Your task to perform on an android device: turn off notifications in google photos Image 0: 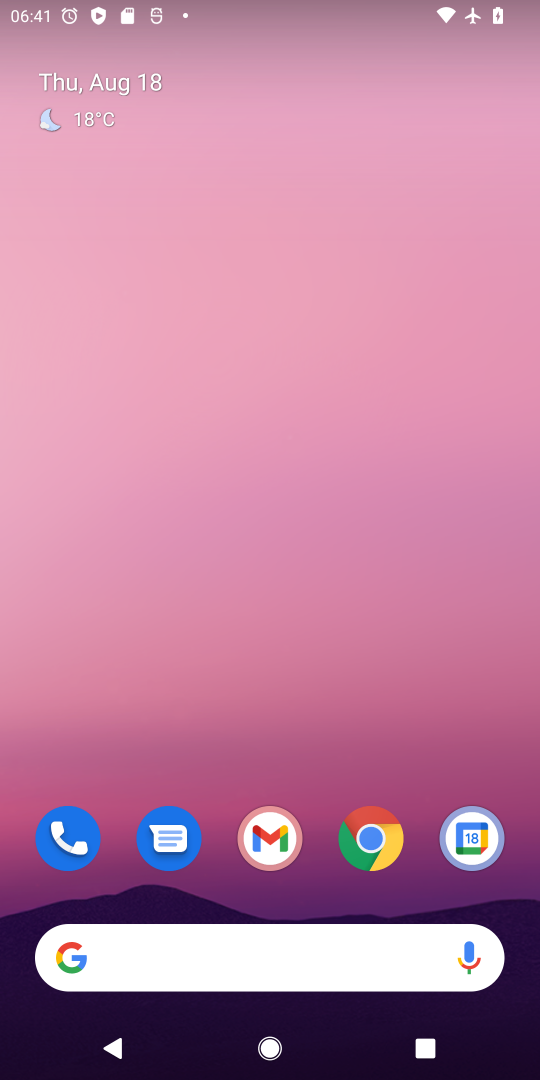
Step 0: press home button
Your task to perform on an android device: turn off notifications in google photos Image 1: 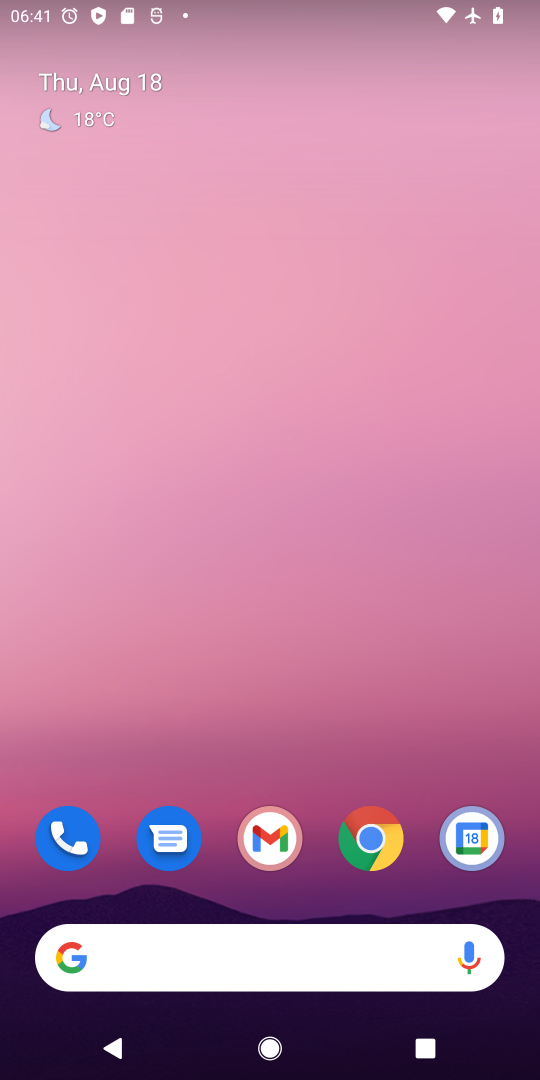
Step 1: drag from (325, 886) to (351, 5)
Your task to perform on an android device: turn off notifications in google photos Image 2: 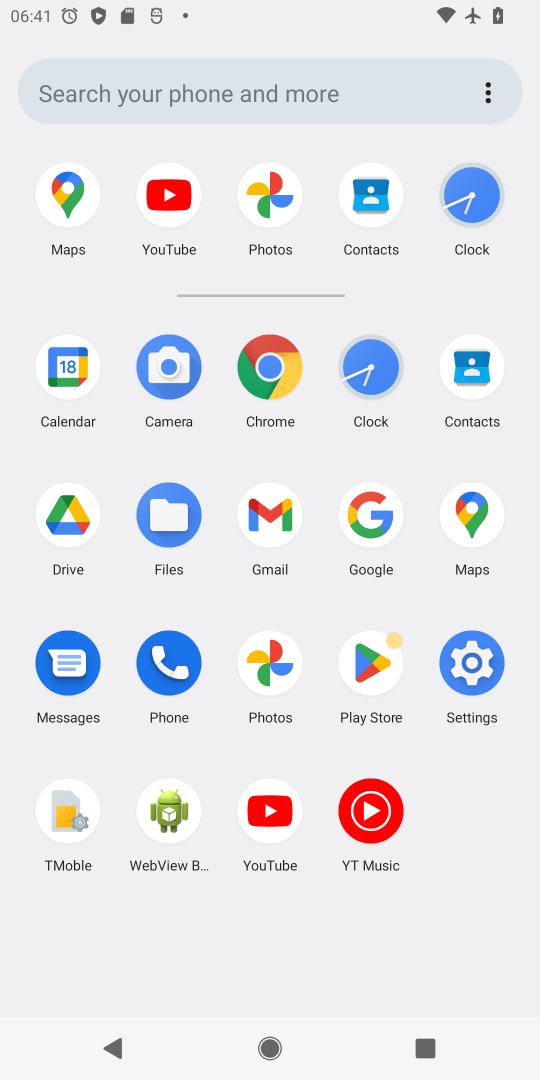
Step 2: click (274, 190)
Your task to perform on an android device: turn off notifications in google photos Image 3: 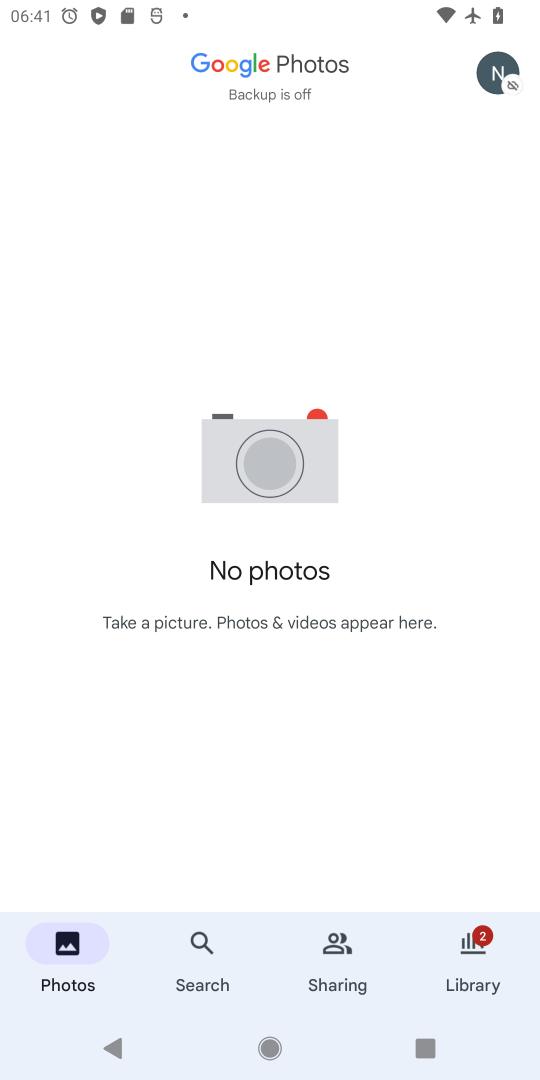
Step 3: click (504, 75)
Your task to perform on an android device: turn off notifications in google photos Image 4: 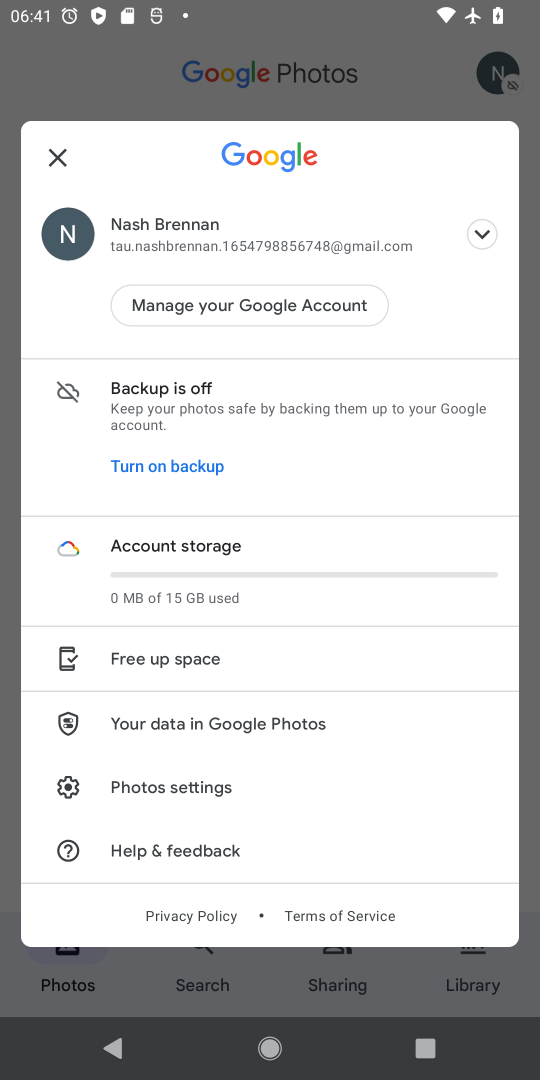
Step 4: click (176, 790)
Your task to perform on an android device: turn off notifications in google photos Image 5: 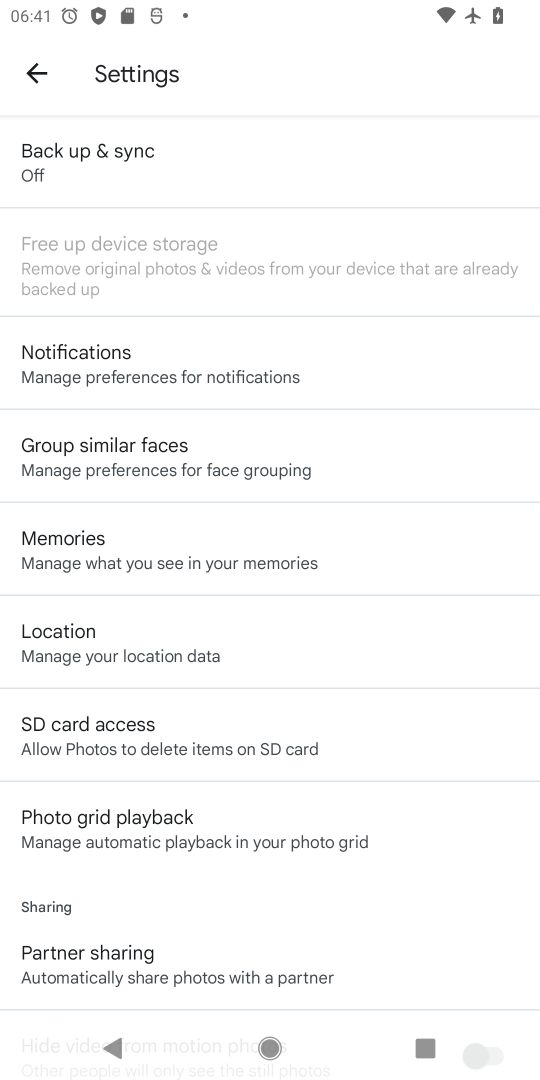
Step 5: click (58, 383)
Your task to perform on an android device: turn off notifications in google photos Image 6: 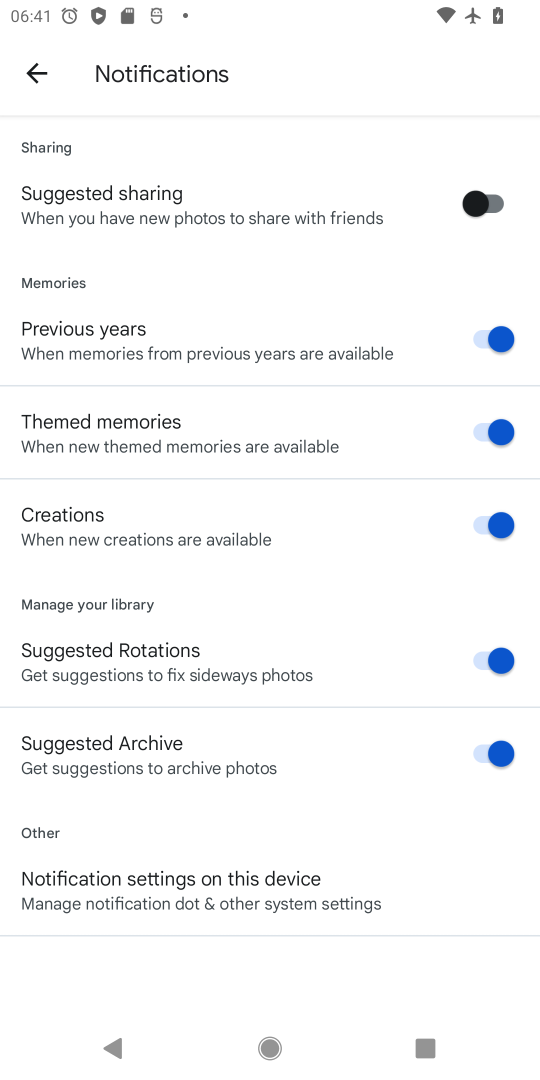
Step 6: task complete